Your task to perform on an android device: turn on data saver in the chrome app Image 0: 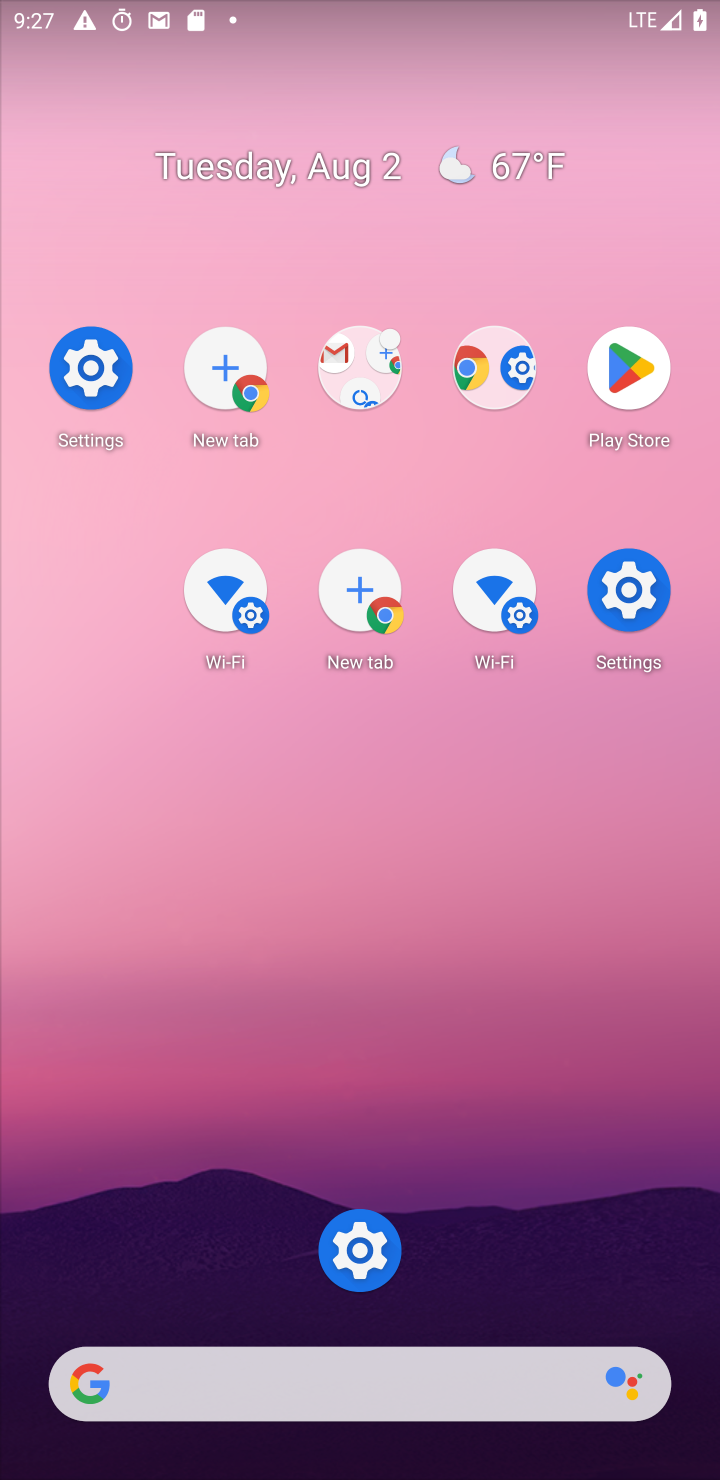
Step 0: click (426, 264)
Your task to perform on an android device: turn on data saver in the chrome app Image 1: 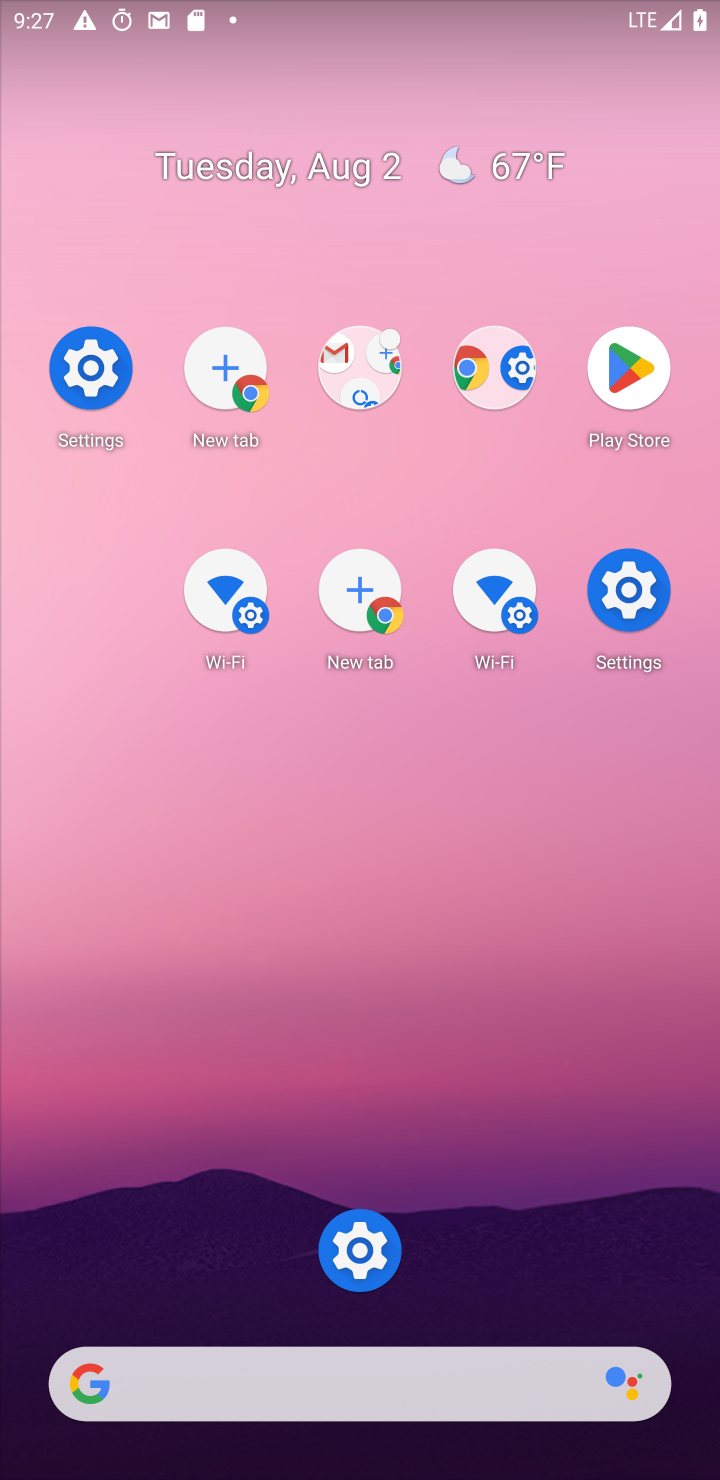
Step 1: drag from (335, 216) to (431, 13)
Your task to perform on an android device: turn on data saver in the chrome app Image 2: 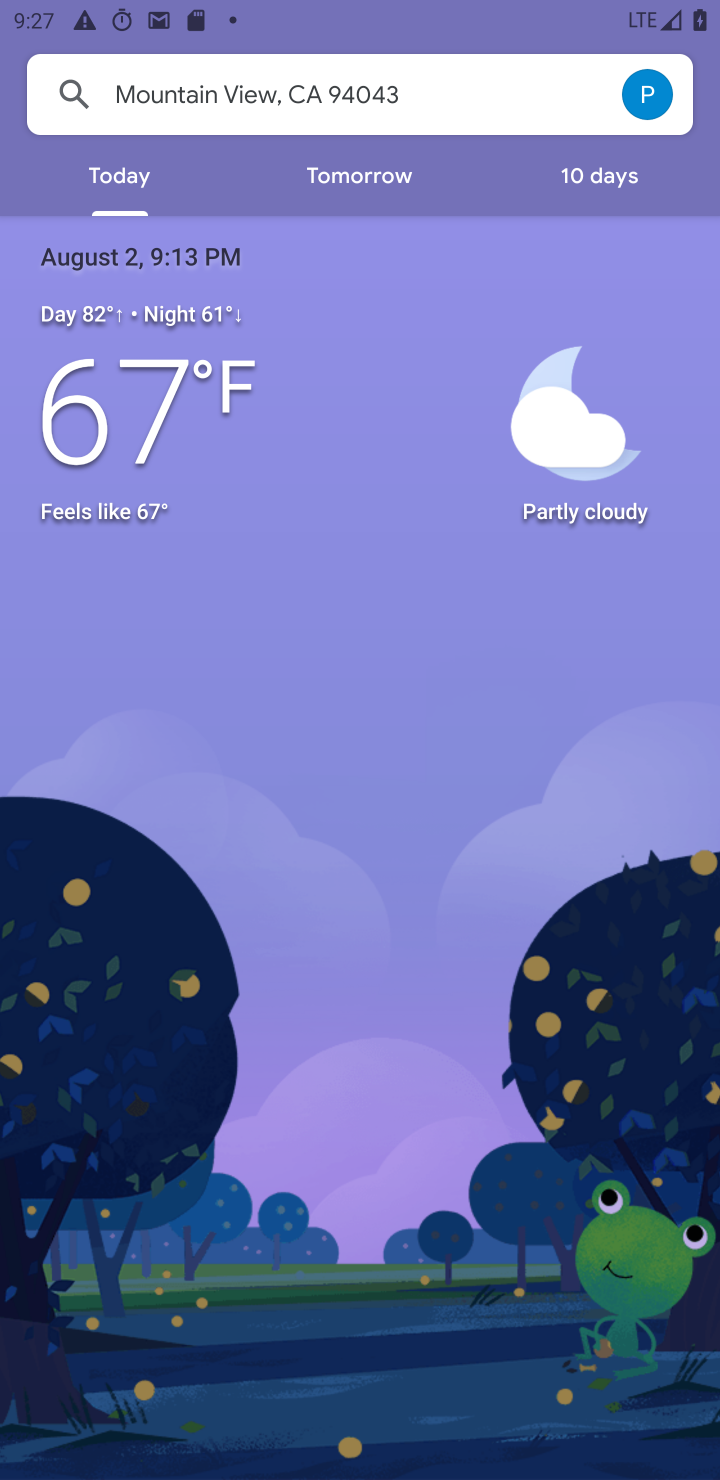
Step 2: press back button
Your task to perform on an android device: turn on data saver in the chrome app Image 3: 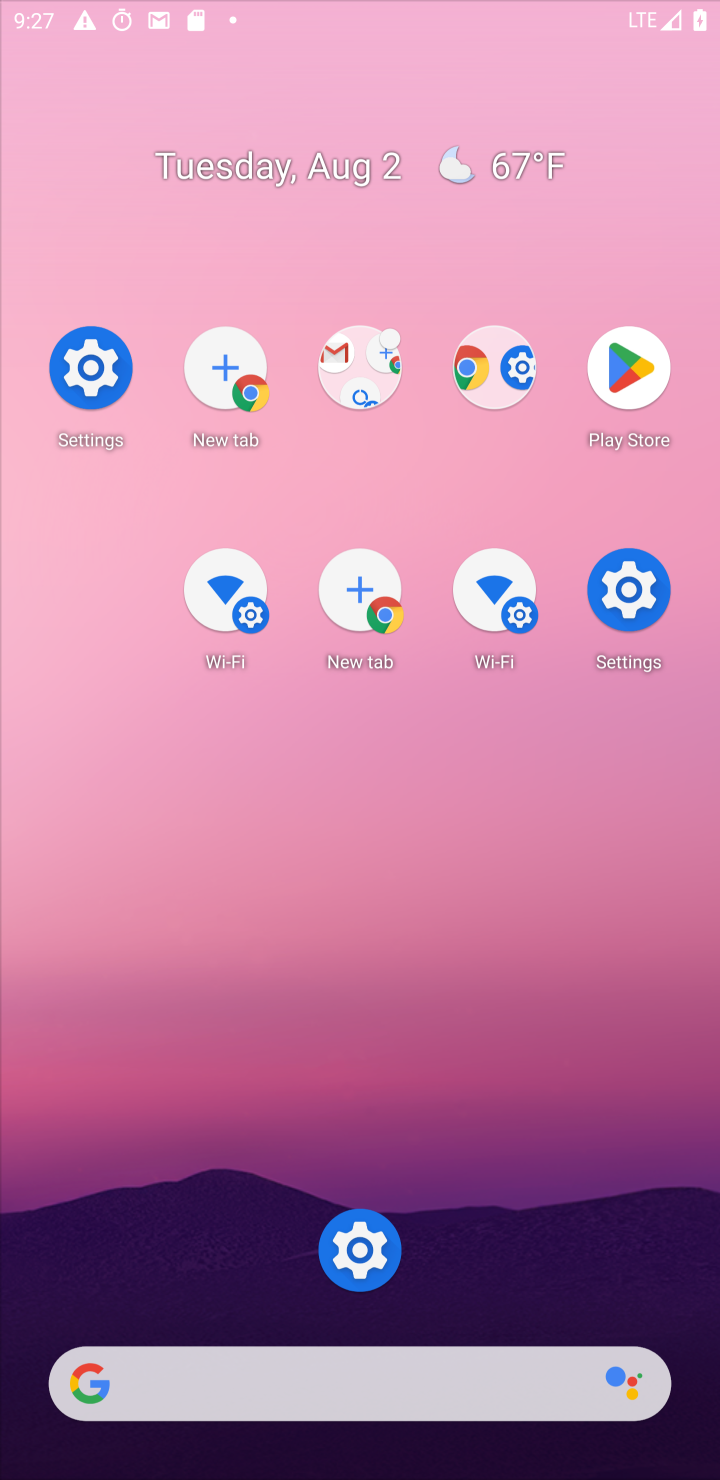
Step 3: press home button
Your task to perform on an android device: turn on data saver in the chrome app Image 4: 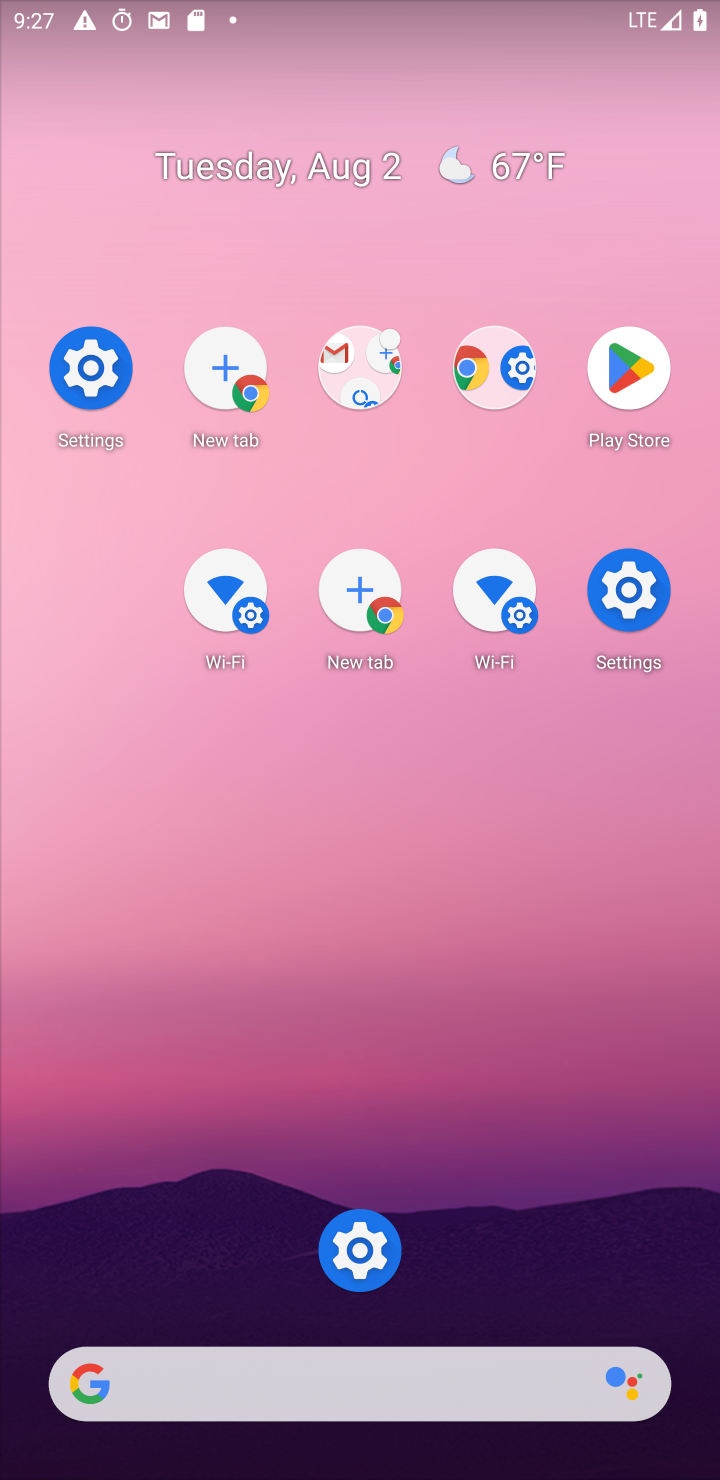
Step 4: click (304, 292)
Your task to perform on an android device: turn on data saver in the chrome app Image 5: 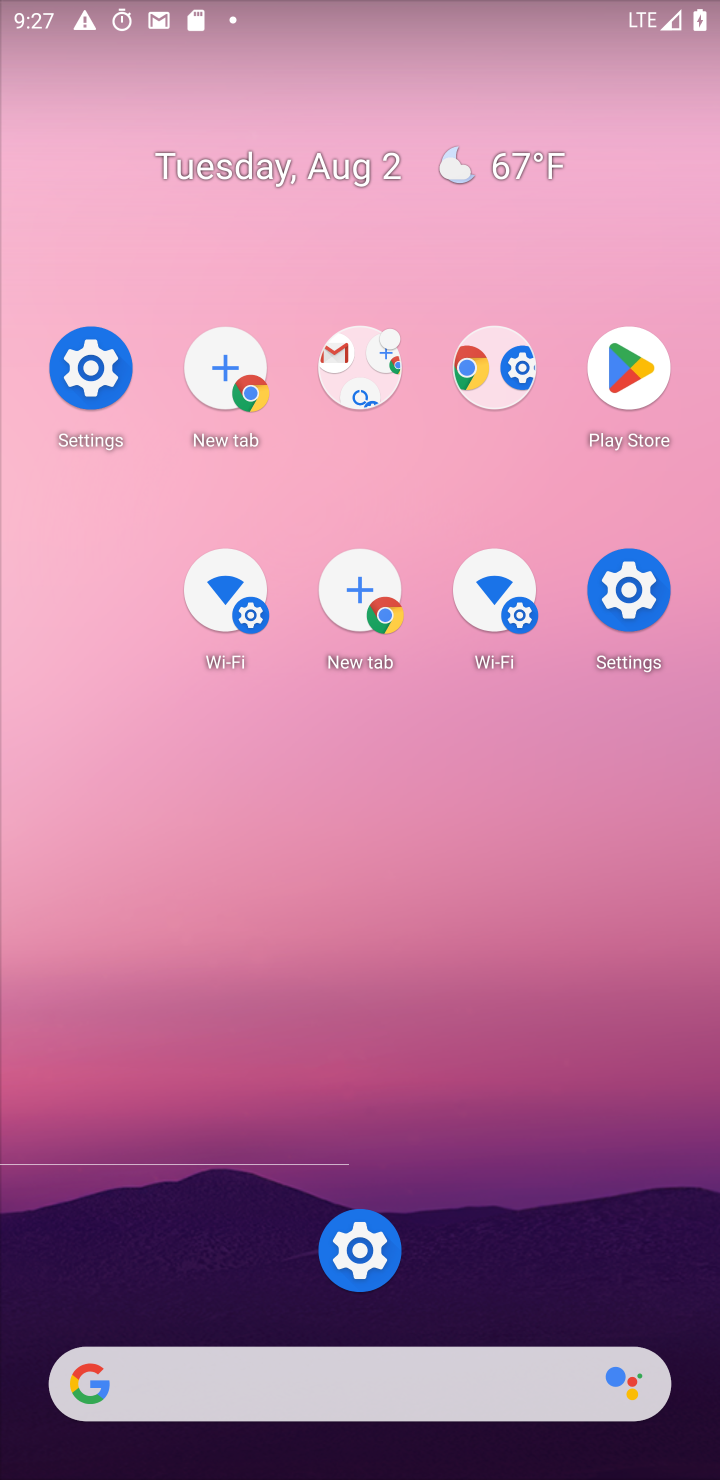
Step 5: click (411, 329)
Your task to perform on an android device: turn on data saver in the chrome app Image 6: 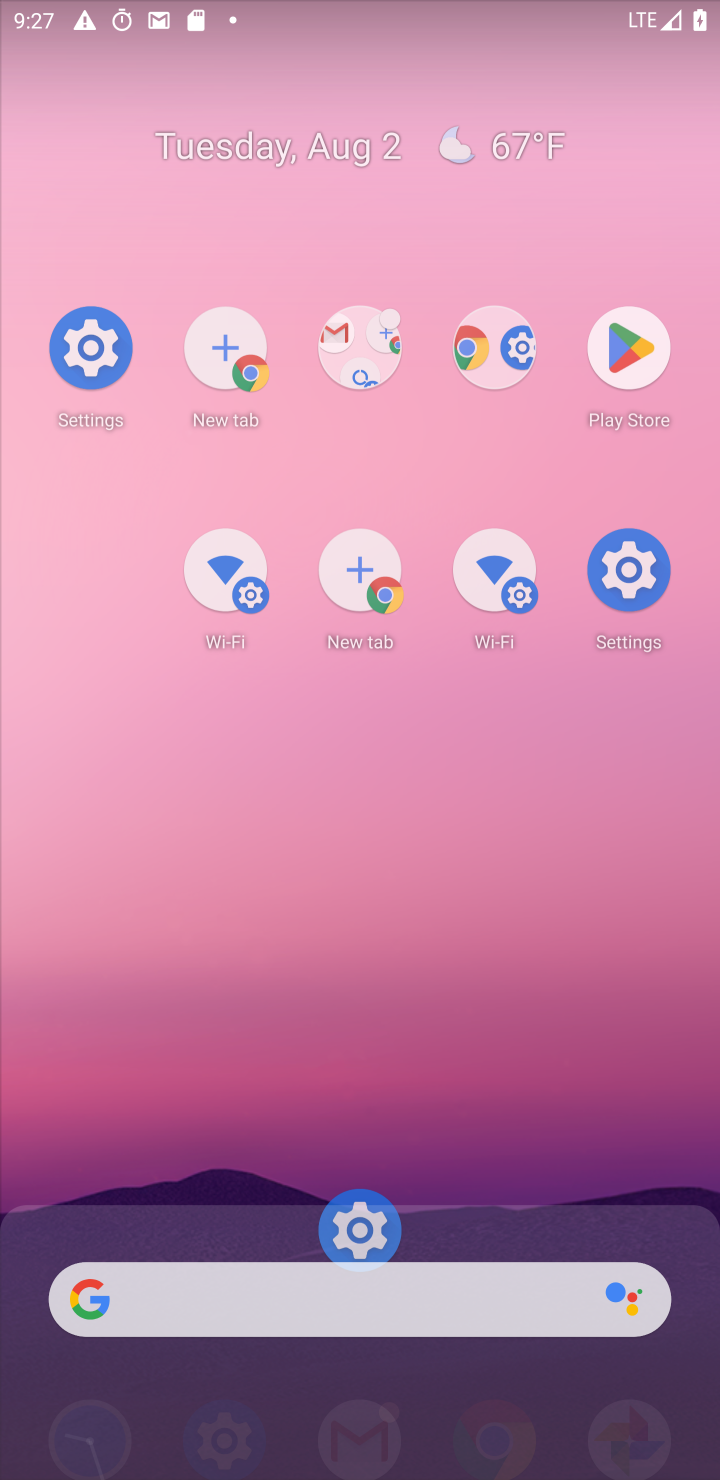
Step 6: drag from (315, 576) to (292, 440)
Your task to perform on an android device: turn on data saver in the chrome app Image 7: 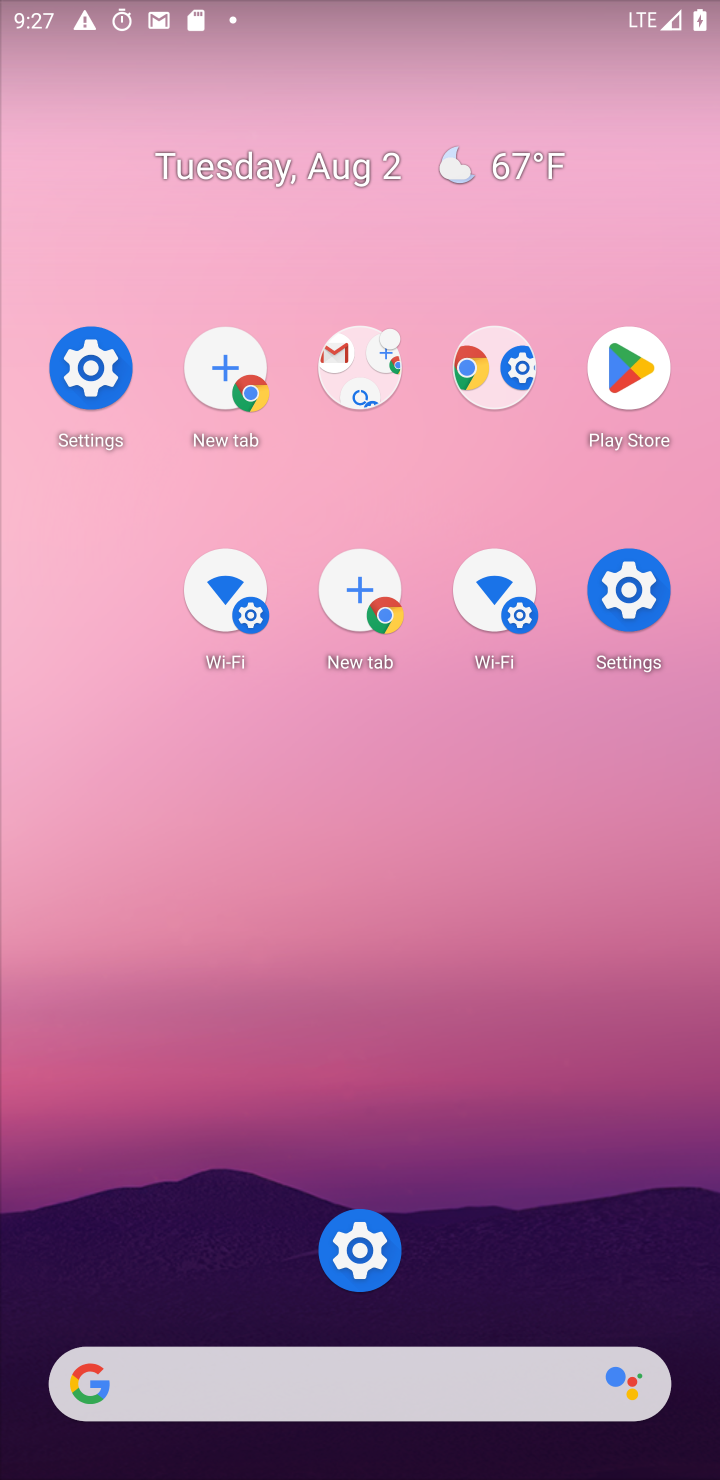
Step 7: drag from (225, 355) to (255, 250)
Your task to perform on an android device: turn on data saver in the chrome app Image 8: 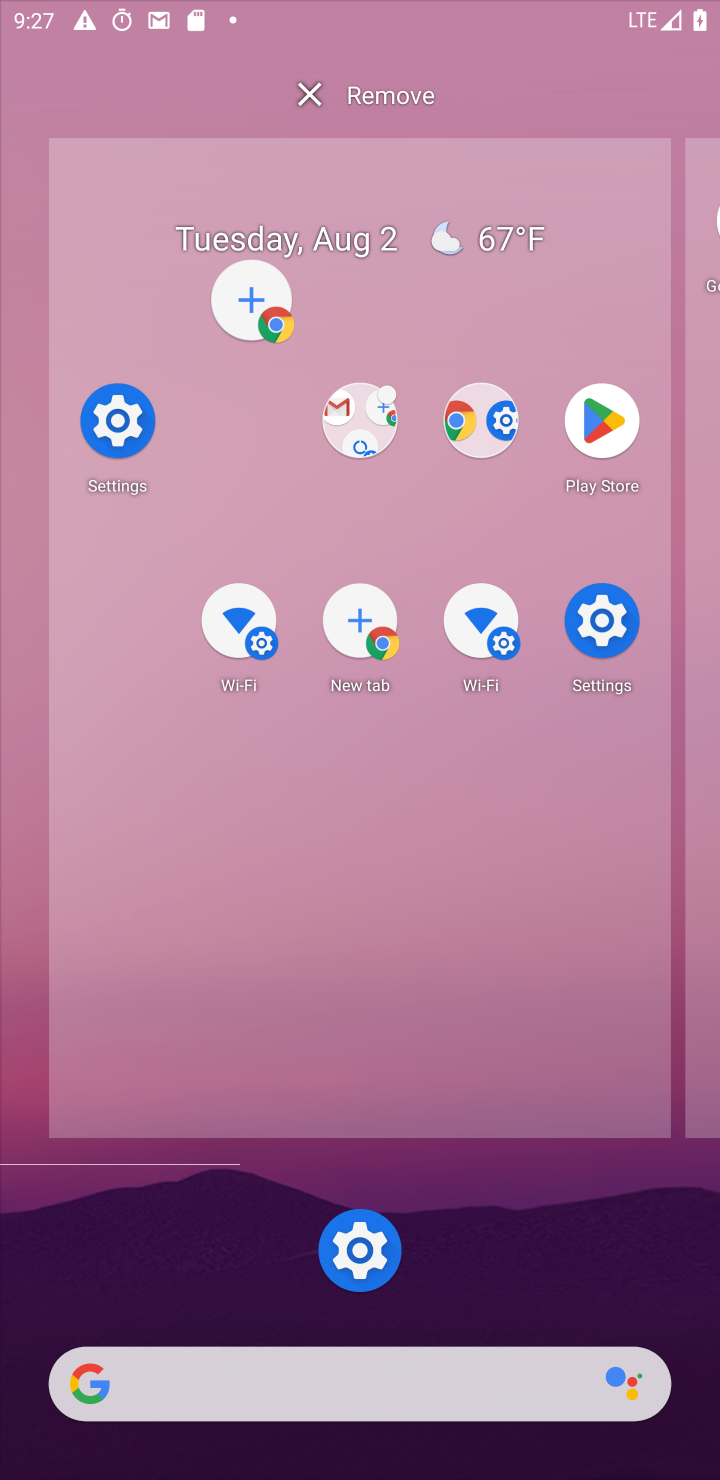
Step 8: drag from (476, 970) to (339, 48)
Your task to perform on an android device: turn on data saver in the chrome app Image 9: 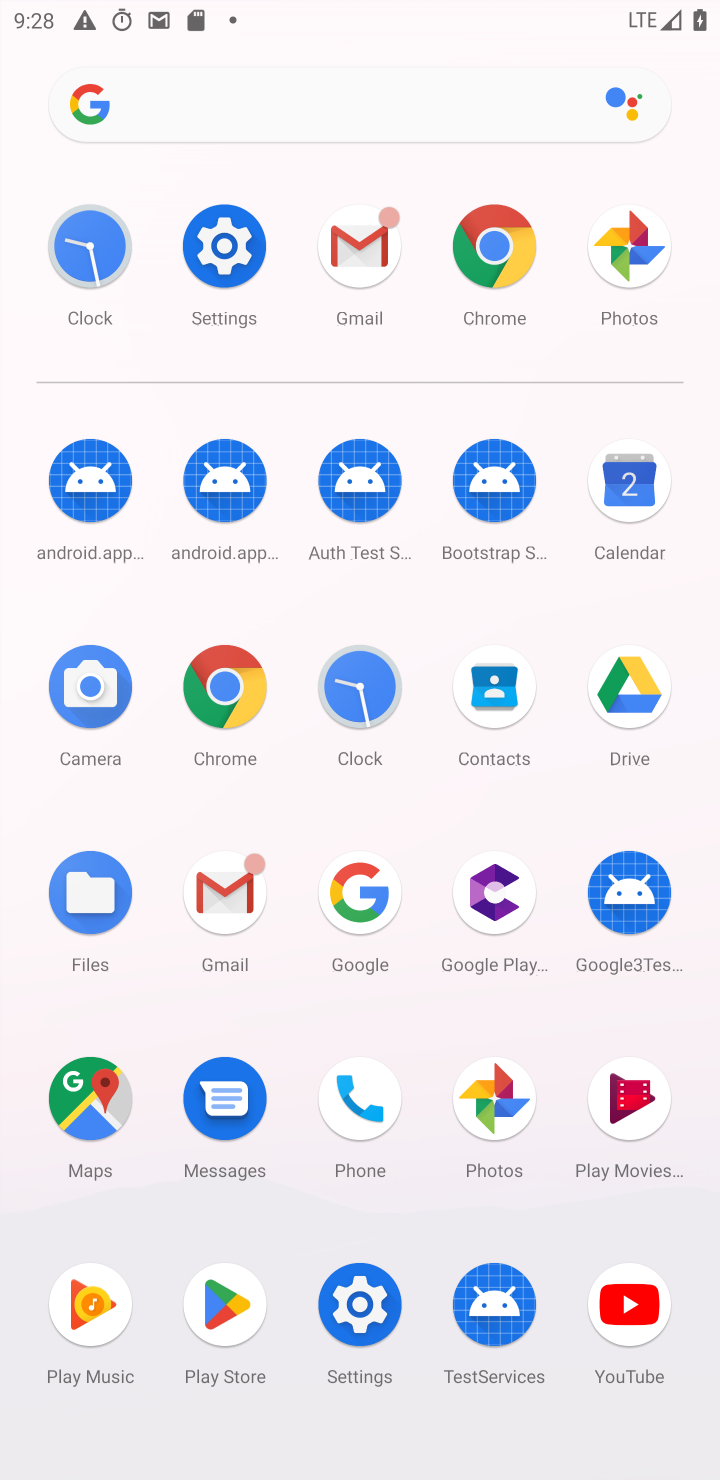
Step 9: click (487, 244)
Your task to perform on an android device: turn on data saver in the chrome app Image 10: 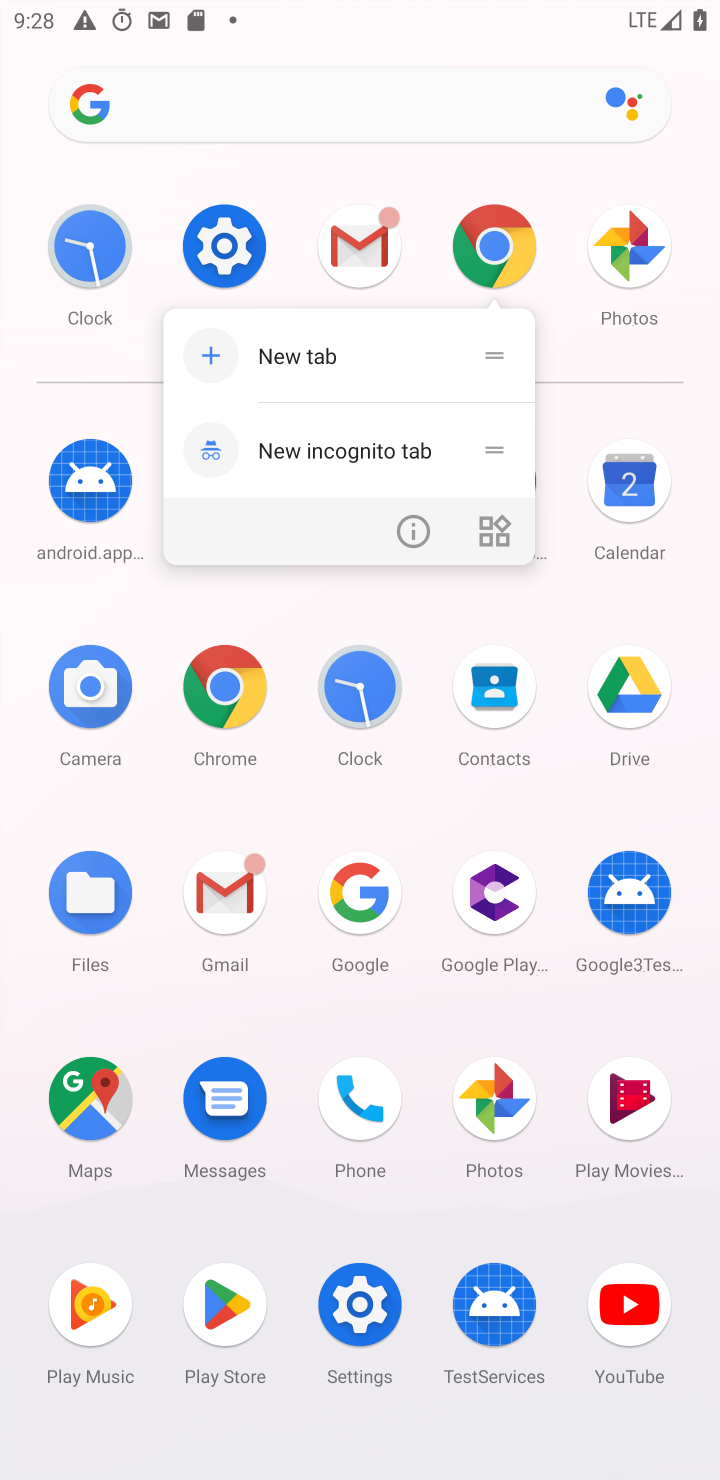
Step 10: click (294, 350)
Your task to perform on an android device: turn on data saver in the chrome app Image 11: 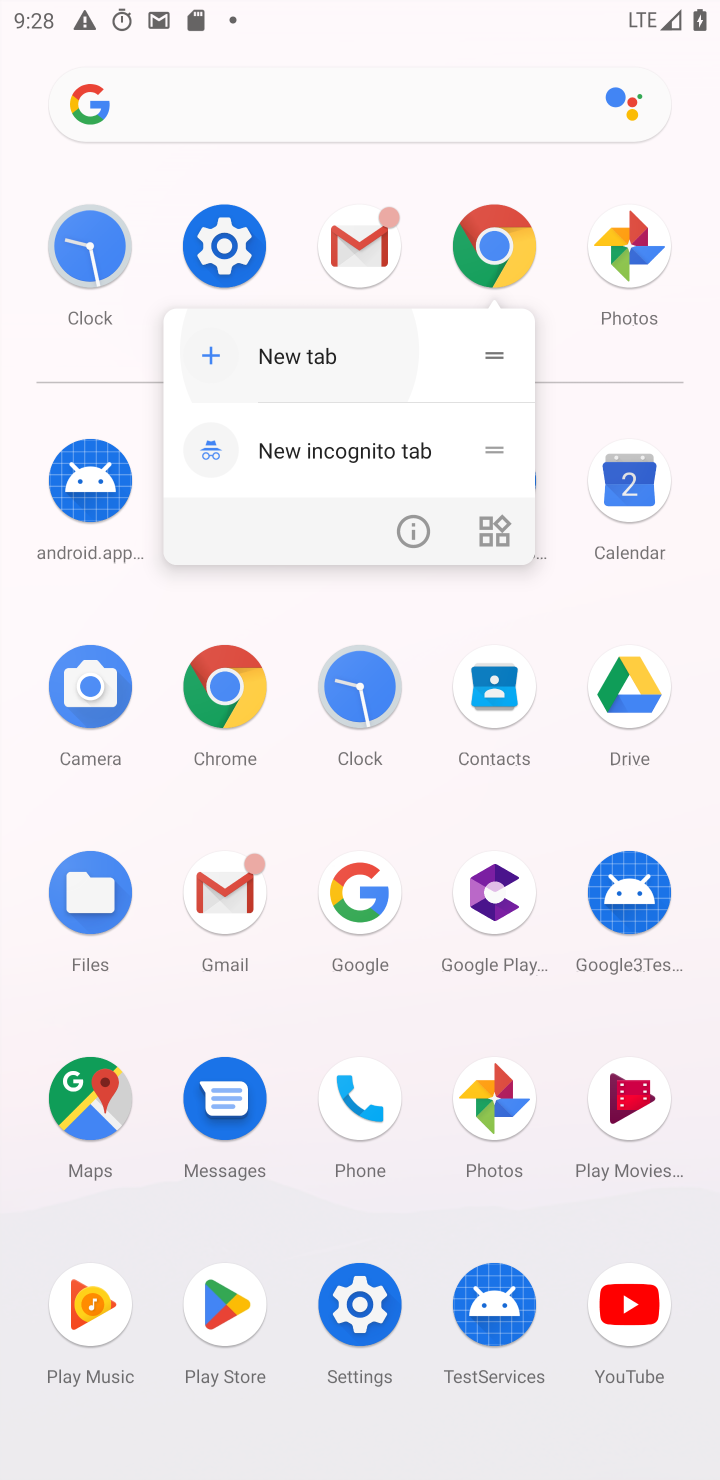
Step 11: click (302, 350)
Your task to perform on an android device: turn on data saver in the chrome app Image 12: 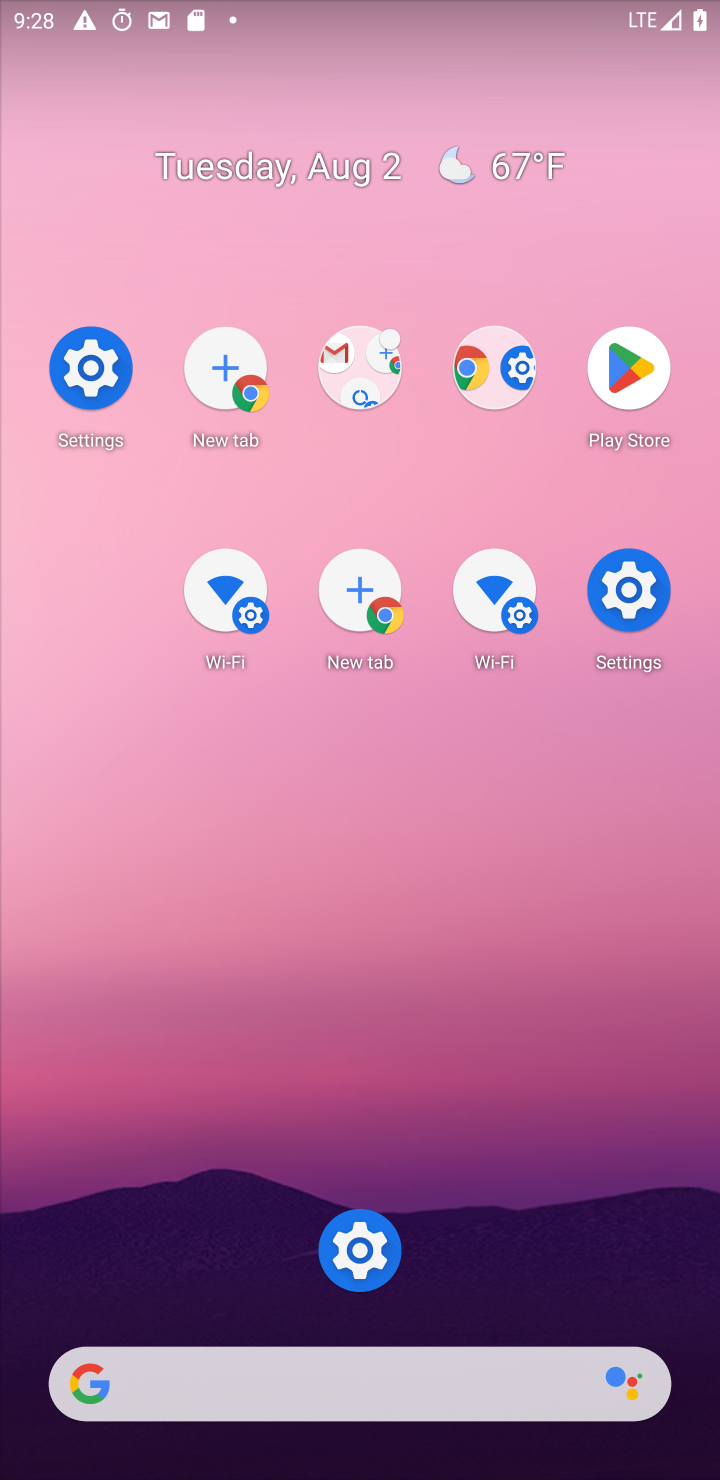
Step 12: click (625, 384)
Your task to perform on an android device: turn on data saver in the chrome app Image 13: 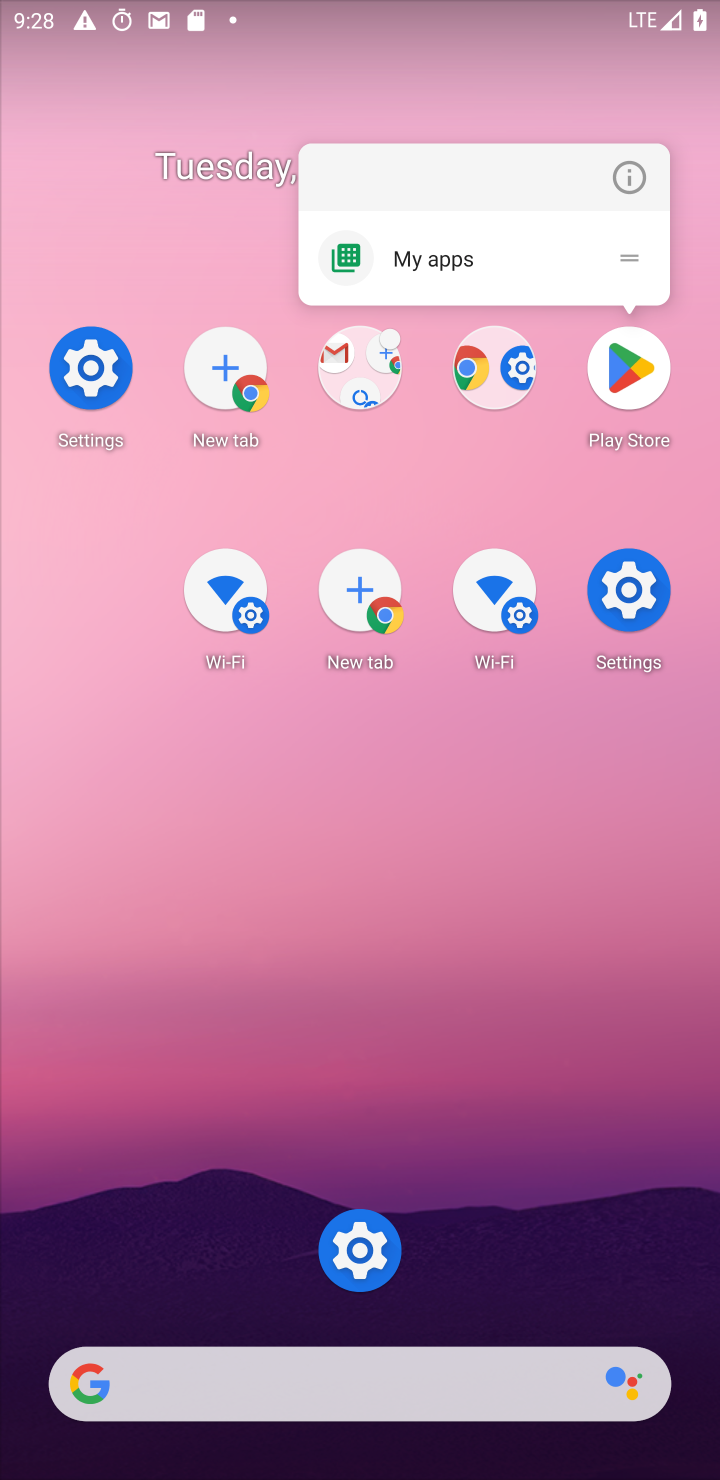
Step 13: press back button
Your task to perform on an android device: turn on data saver in the chrome app Image 14: 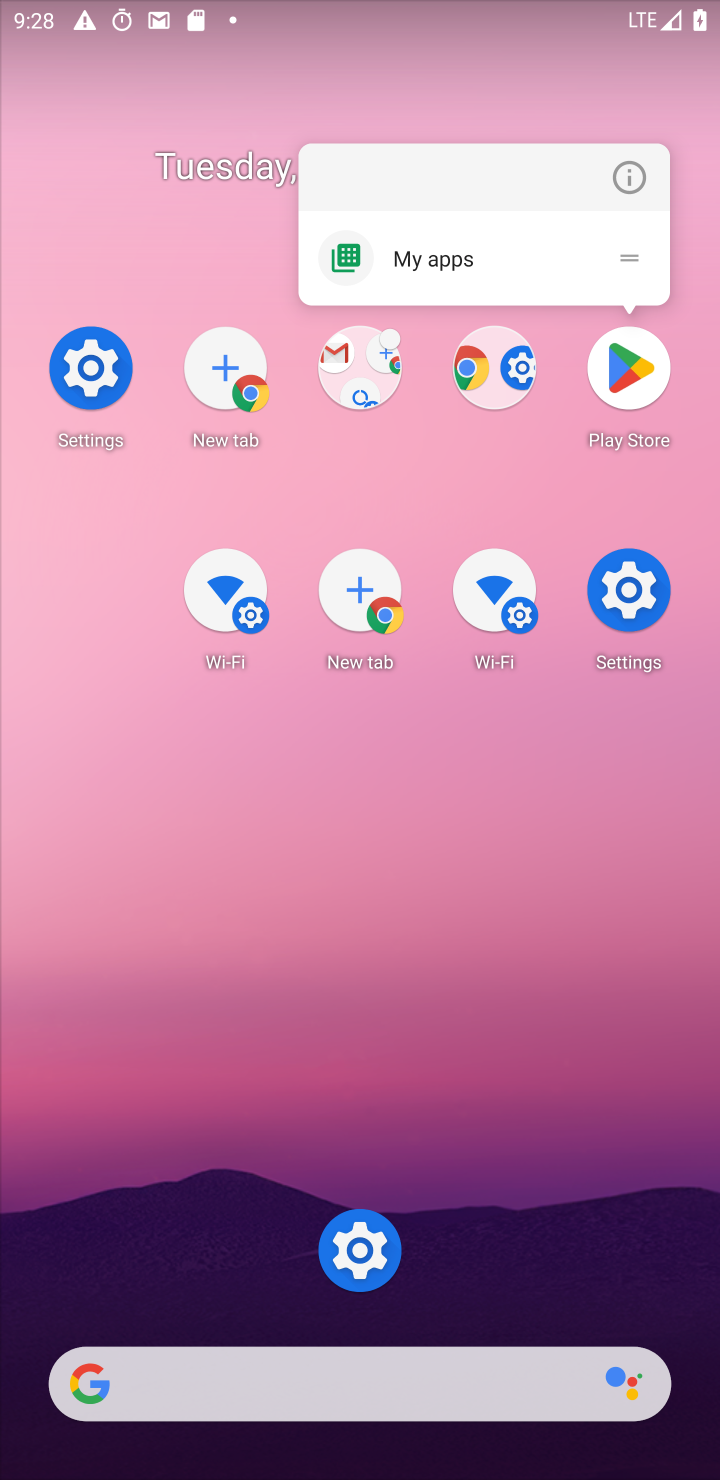
Step 14: press back button
Your task to perform on an android device: turn on data saver in the chrome app Image 15: 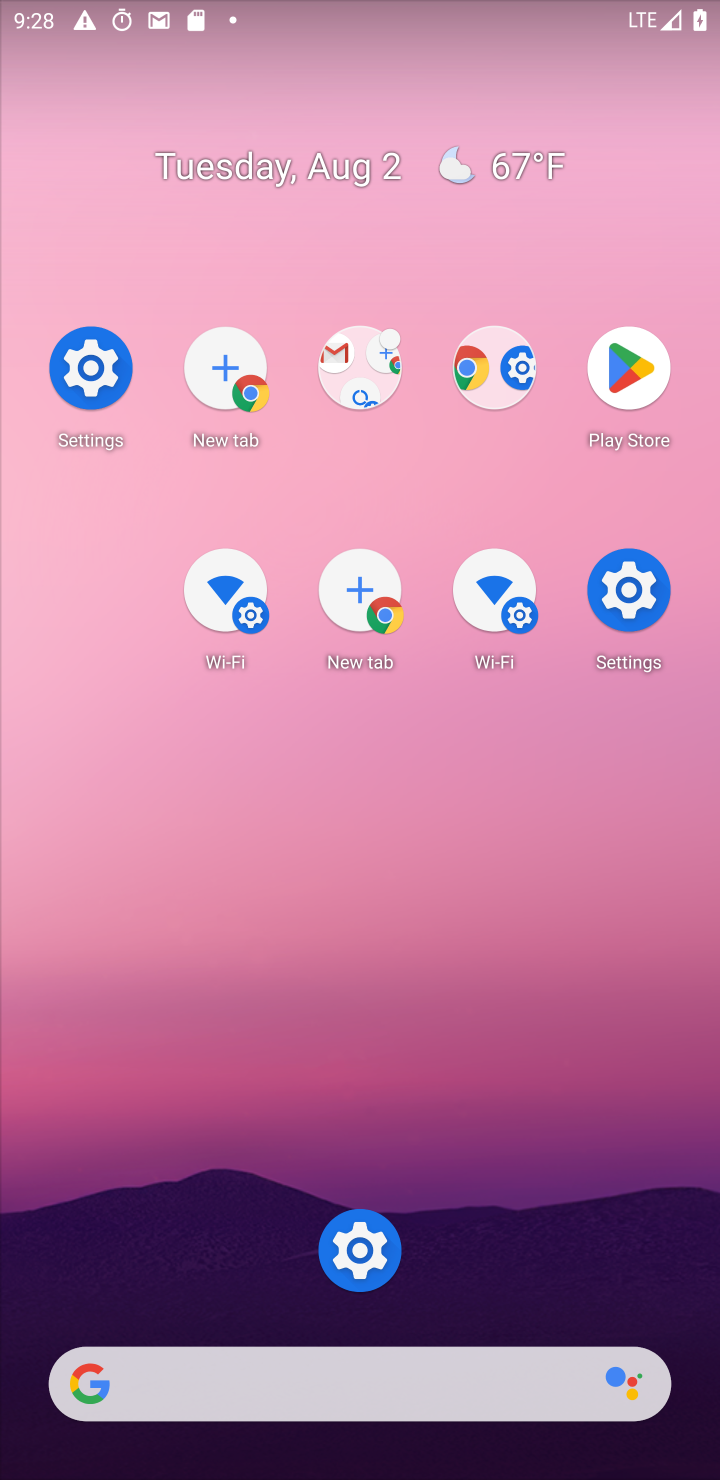
Step 15: drag from (270, 354) to (509, 113)
Your task to perform on an android device: turn on data saver in the chrome app Image 16: 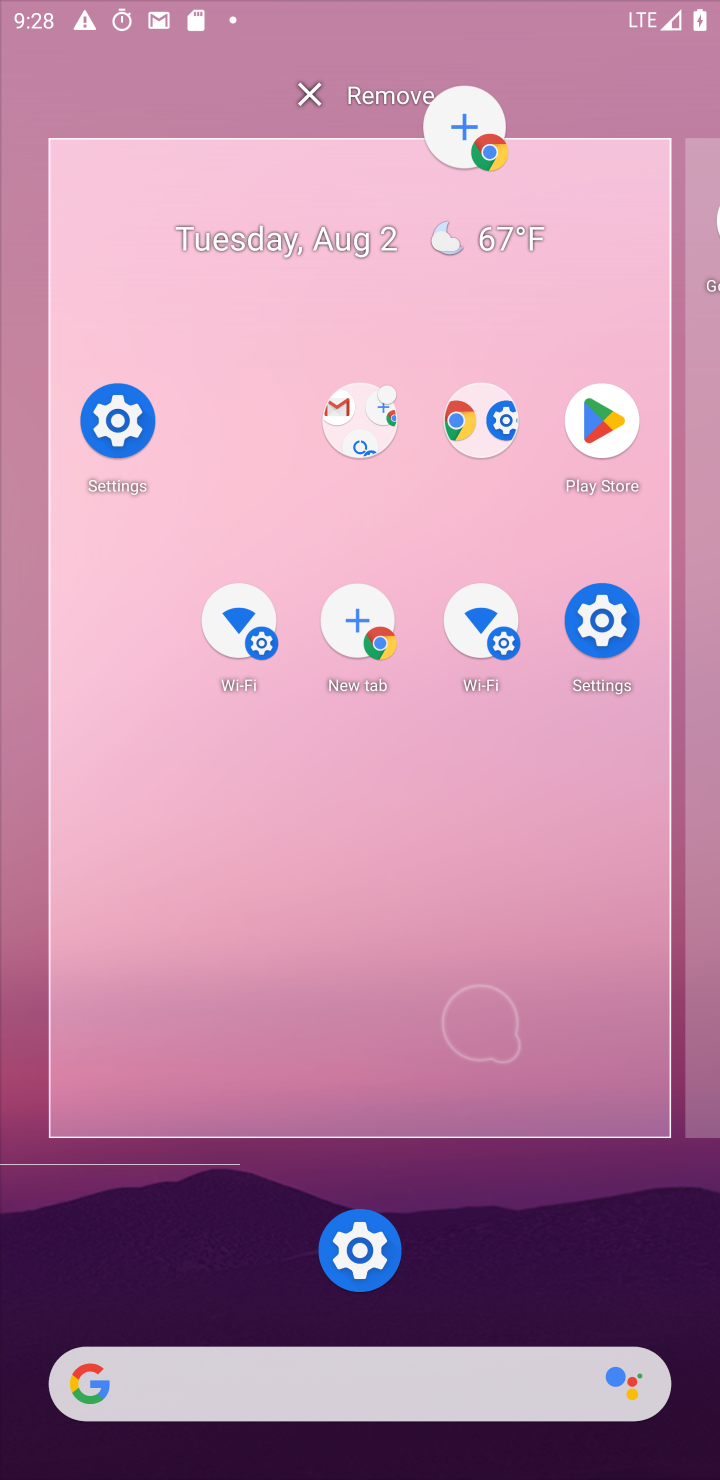
Step 16: drag from (254, 219) to (456, 154)
Your task to perform on an android device: turn on data saver in the chrome app Image 17: 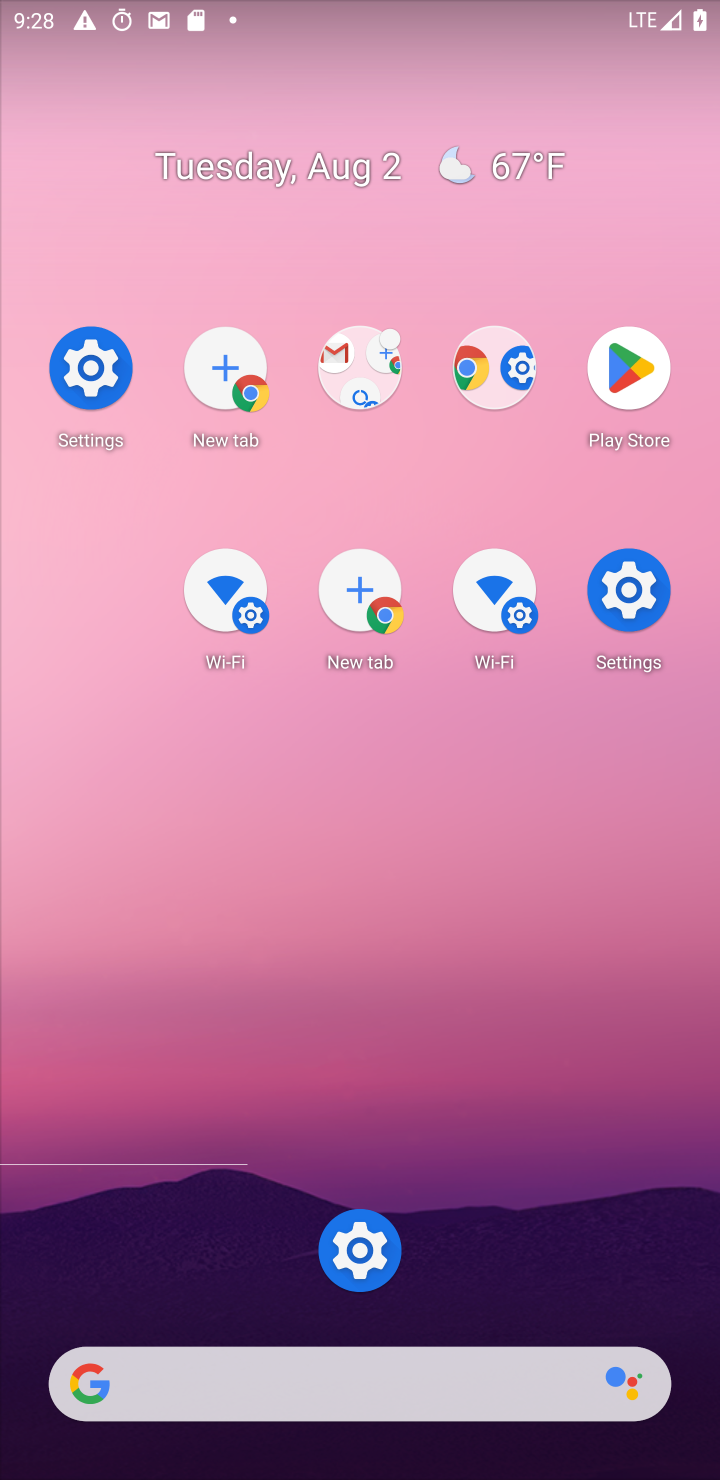
Step 17: drag from (303, 88) to (554, 602)
Your task to perform on an android device: turn on data saver in the chrome app Image 18: 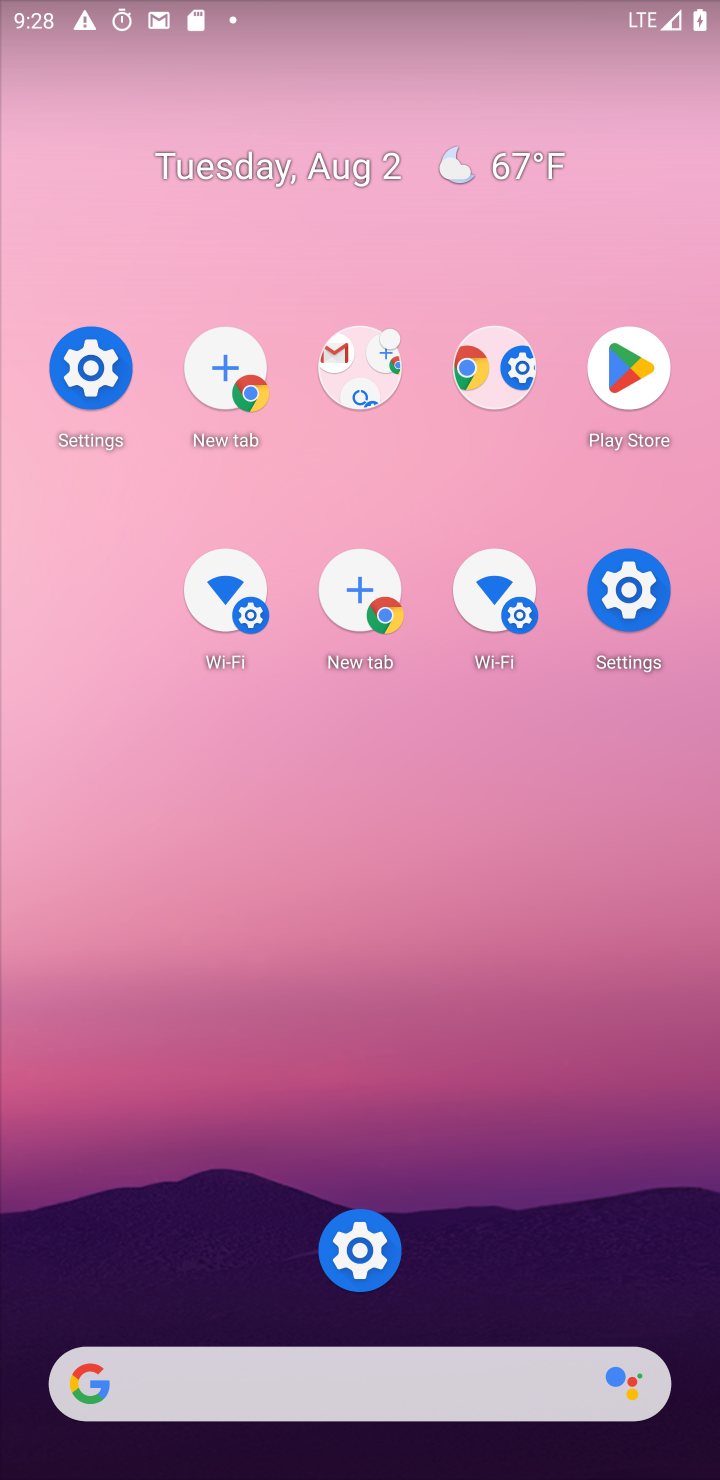
Step 18: drag from (356, 721) to (285, 217)
Your task to perform on an android device: turn on data saver in the chrome app Image 19: 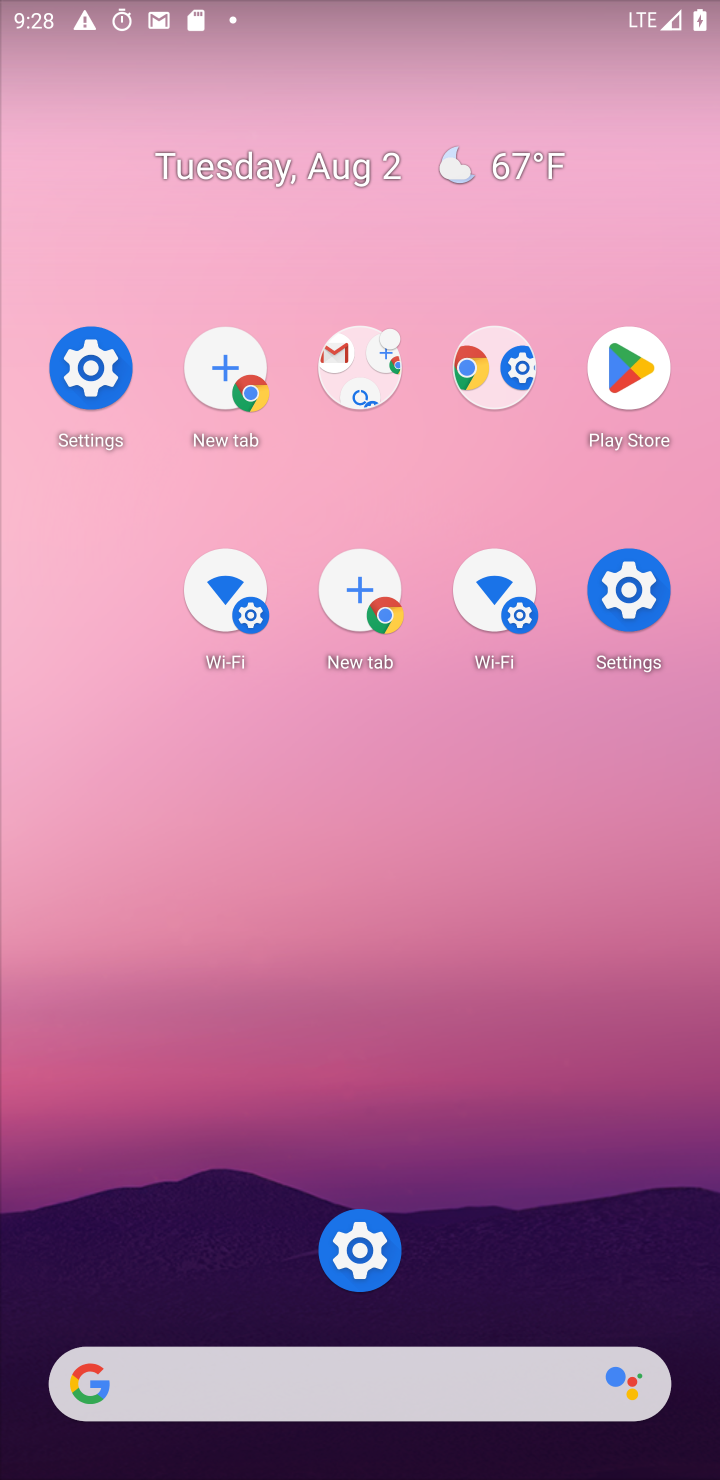
Step 19: drag from (389, 485) to (376, 406)
Your task to perform on an android device: turn on data saver in the chrome app Image 20: 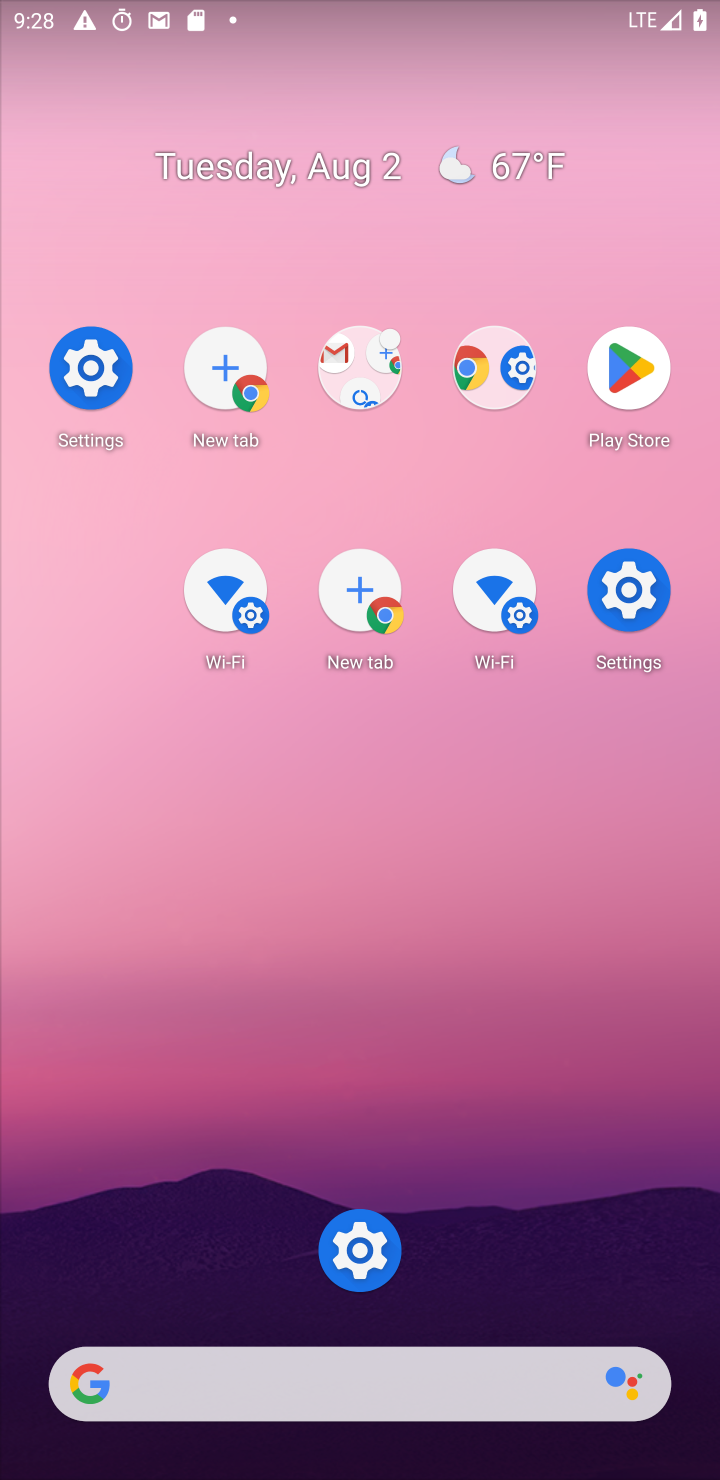
Step 20: click (302, 453)
Your task to perform on an android device: turn on data saver in the chrome app Image 21: 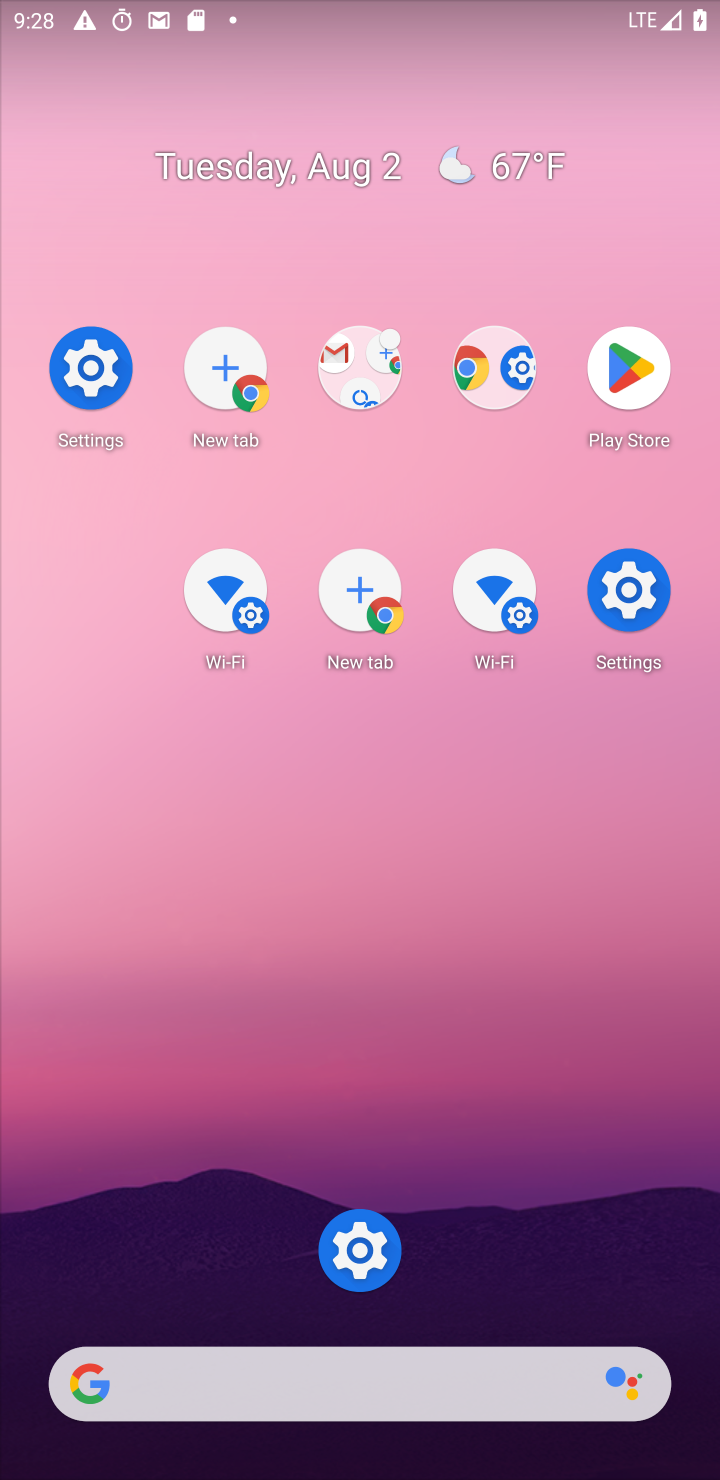
Step 21: drag from (388, 1265) to (307, 506)
Your task to perform on an android device: turn on data saver in the chrome app Image 22: 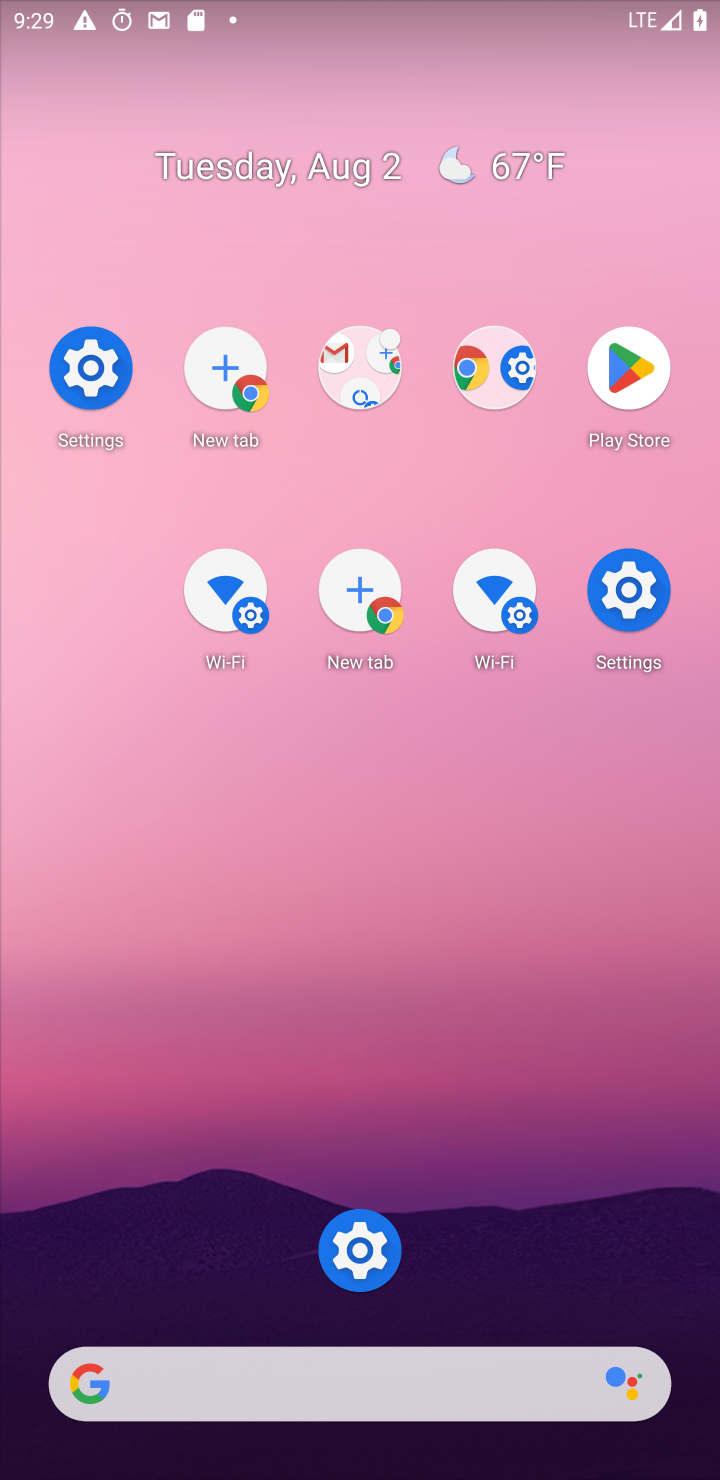
Step 22: click (378, 620)
Your task to perform on an android device: turn on data saver in the chrome app Image 23: 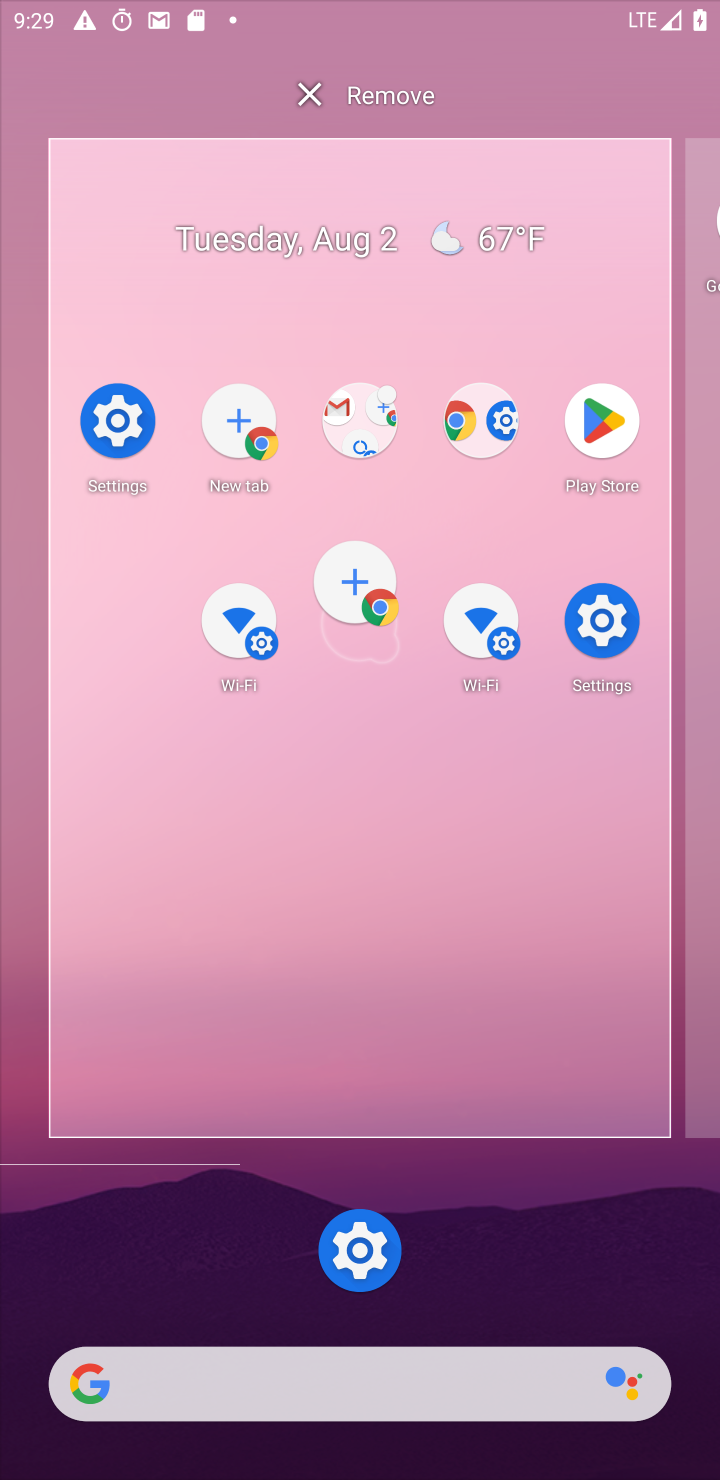
Step 23: click (369, 592)
Your task to perform on an android device: turn on data saver in the chrome app Image 24: 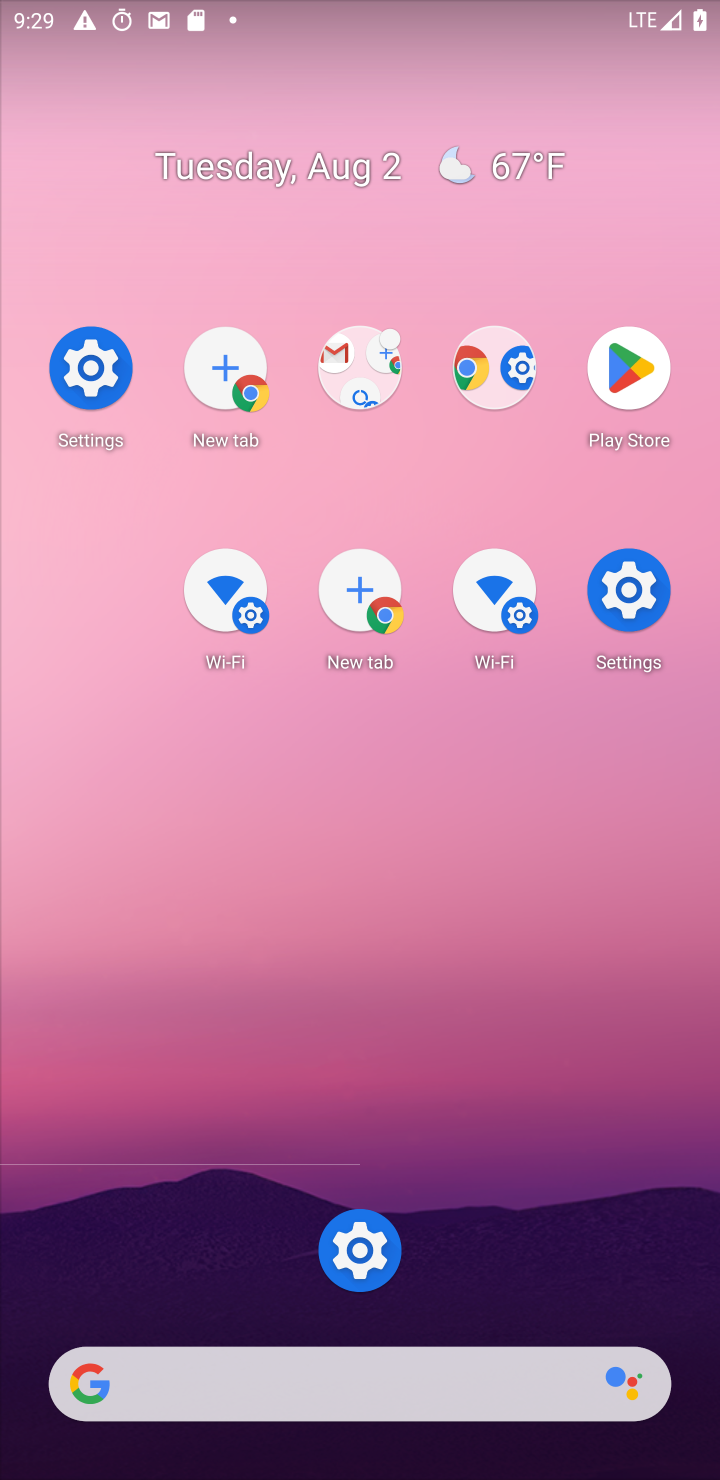
Step 24: click (381, 656)
Your task to perform on an android device: turn on data saver in the chrome app Image 25: 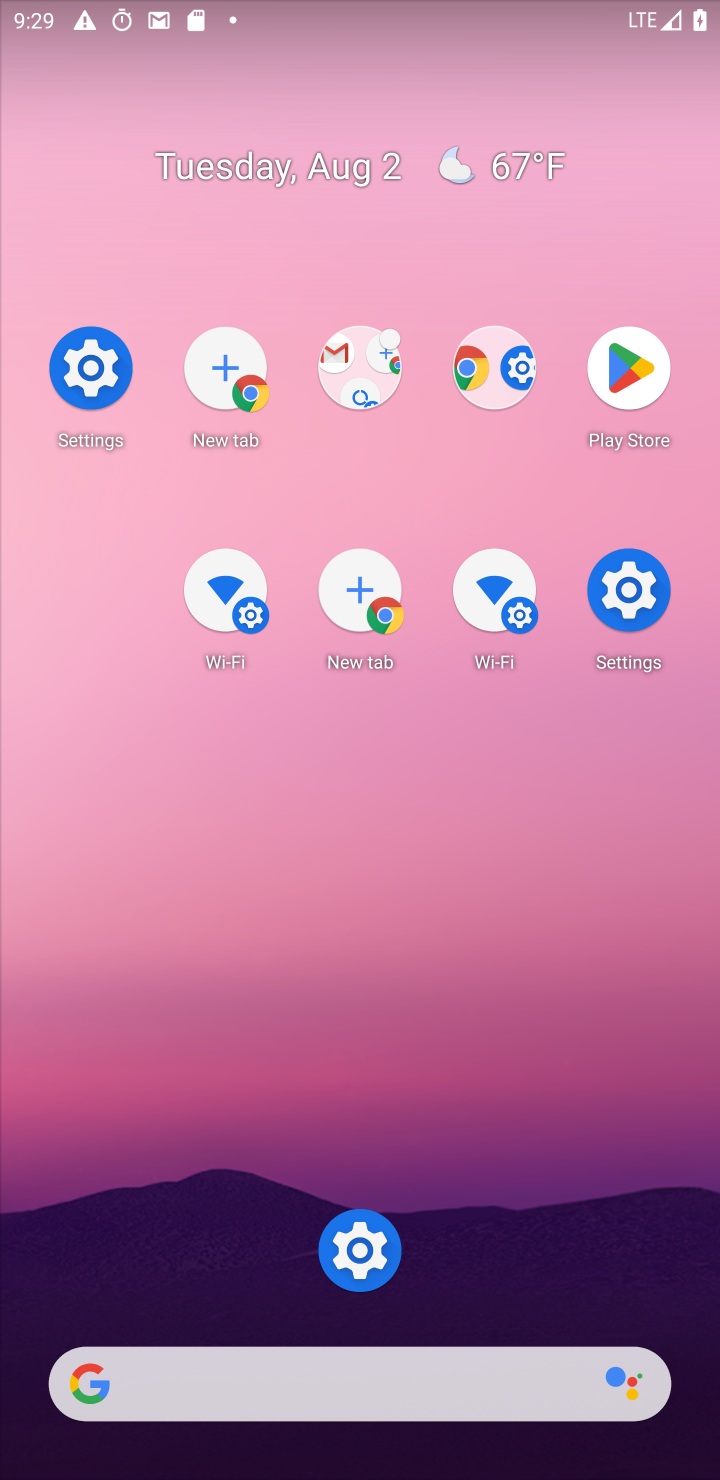
Step 25: task complete